Your task to perform on an android device: open app "Adobe Acrobat Reader" (install if not already installed), go to login, and select forgot password Image 0: 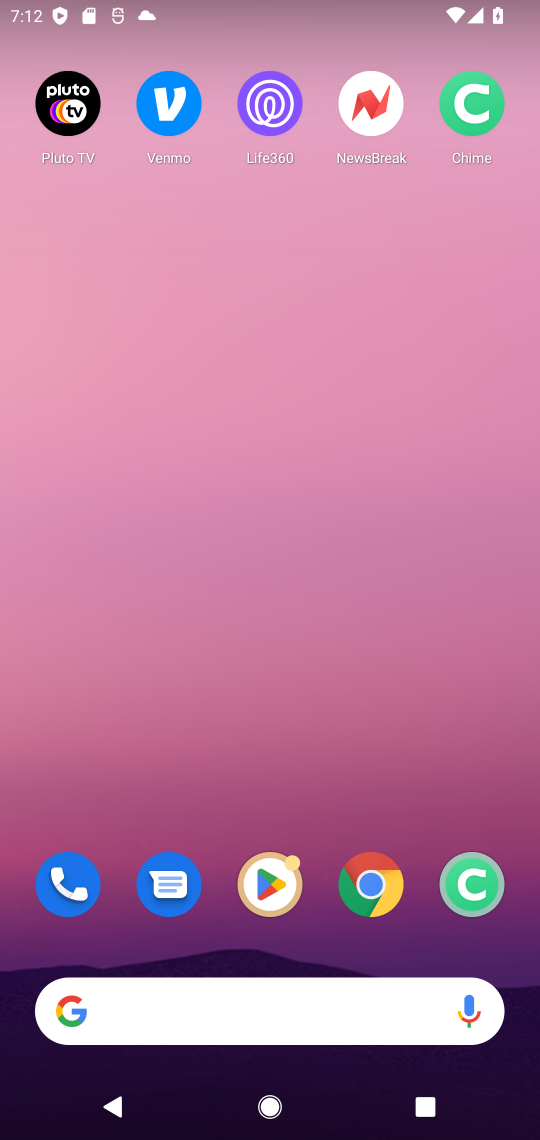
Step 0: click (291, 880)
Your task to perform on an android device: open app "Adobe Acrobat Reader" (install if not already installed), go to login, and select forgot password Image 1: 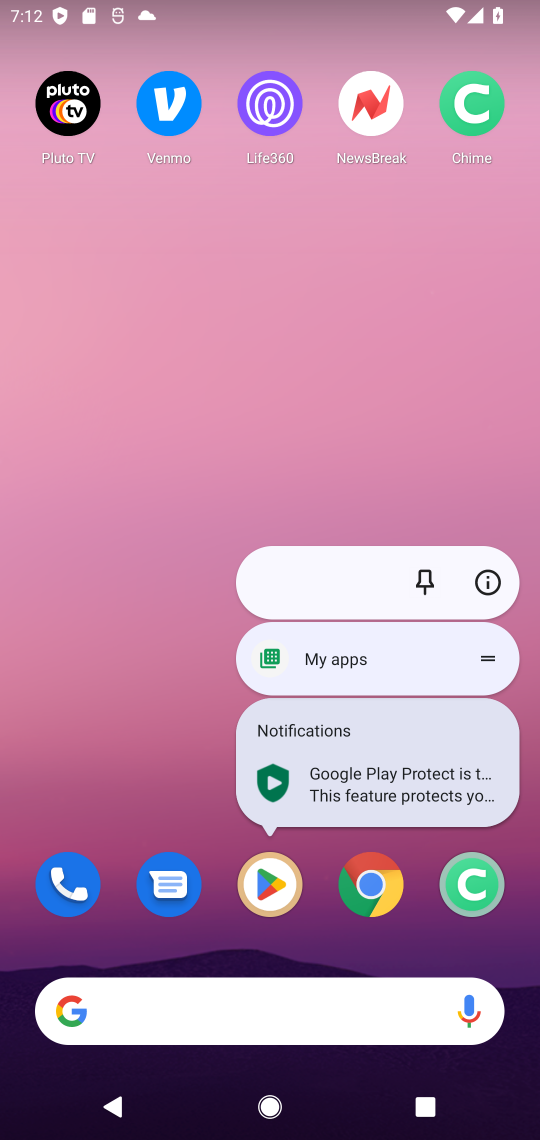
Step 1: click (285, 891)
Your task to perform on an android device: open app "Adobe Acrobat Reader" (install if not already installed), go to login, and select forgot password Image 2: 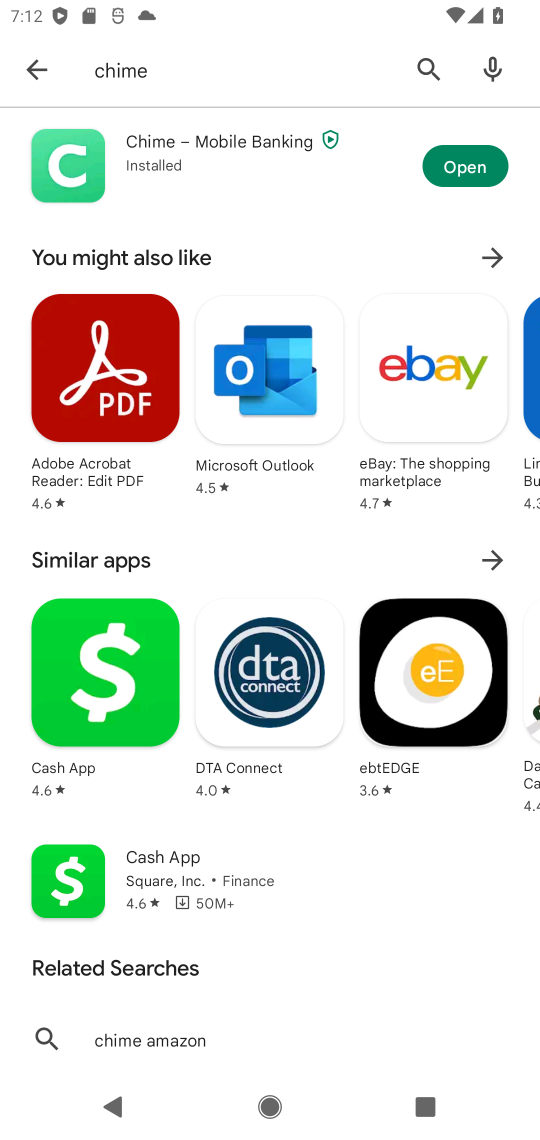
Step 2: click (430, 72)
Your task to perform on an android device: open app "Adobe Acrobat Reader" (install if not already installed), go to login, and select forgot password Image 3: 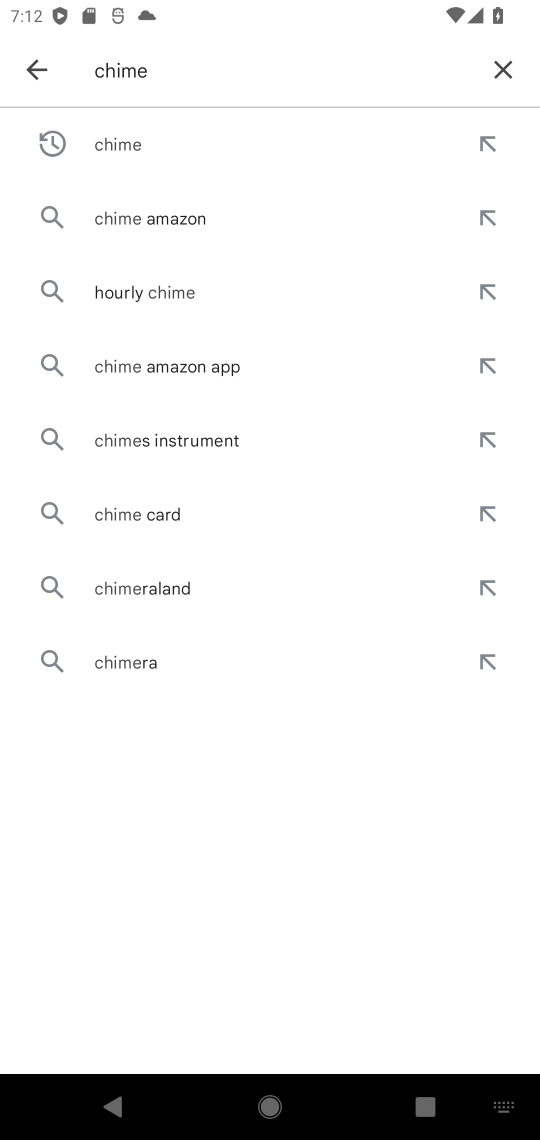
Step 3: click (503, 74)
Your task to perform on an android device: open app "Adobe Acrobat Reader" (install if not already installed), go to login, and select forgot password Image 4: 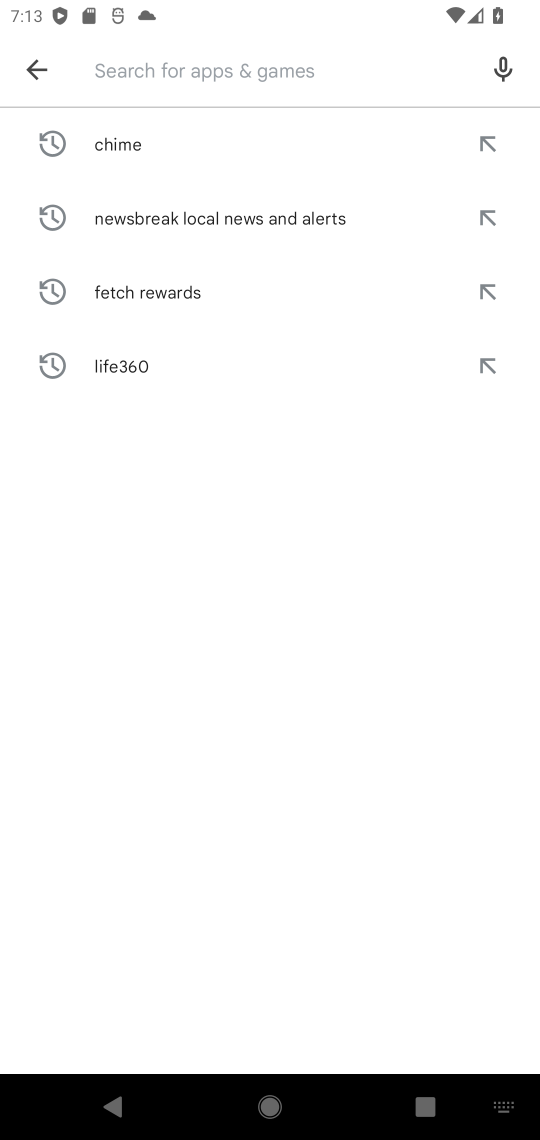
Step 4: type "adibe acrobat"
Your task to perform on an android device: open app "Adobe Acrobat Reader" (install if not already installed), go to login, and select forgot password Image 5: 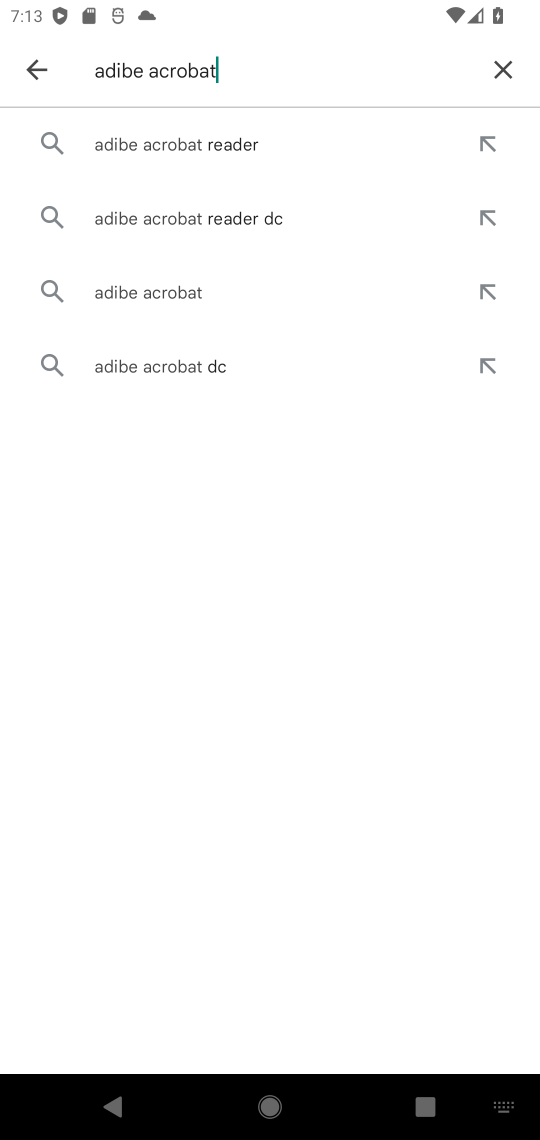
Step 5: click (198, 148)
Your task to perform on an android device: open app "Adobe Acrobat Reader" (install if not already installed), go to login, and select forgot password Image 6: 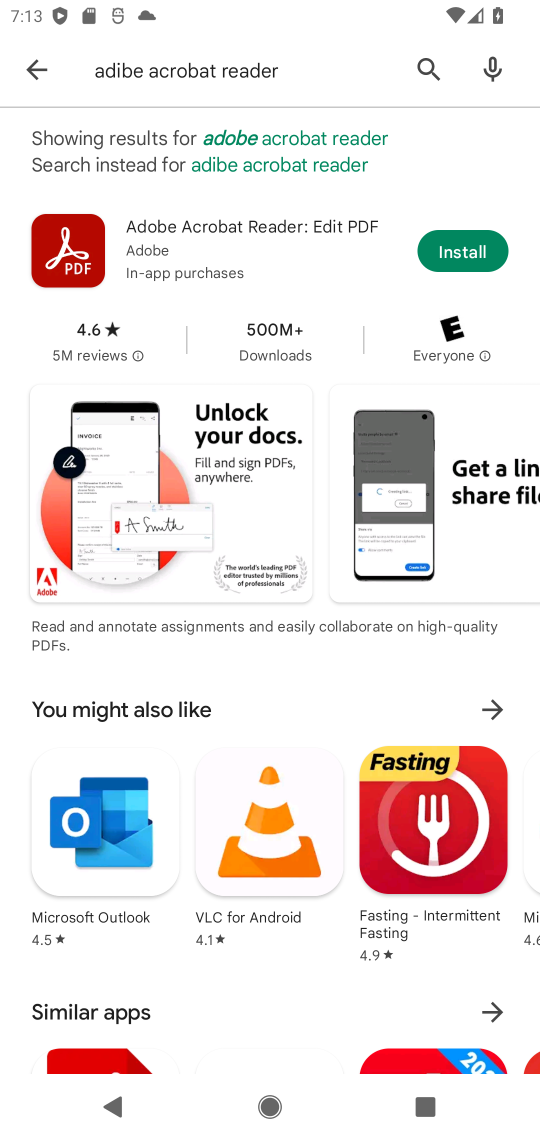
Step 6: click (456, 252)
Your task to perform on an android device: open app "Adobe Acrobat Reader" (install if not already installed), go to login, and select forgot password Image 7: 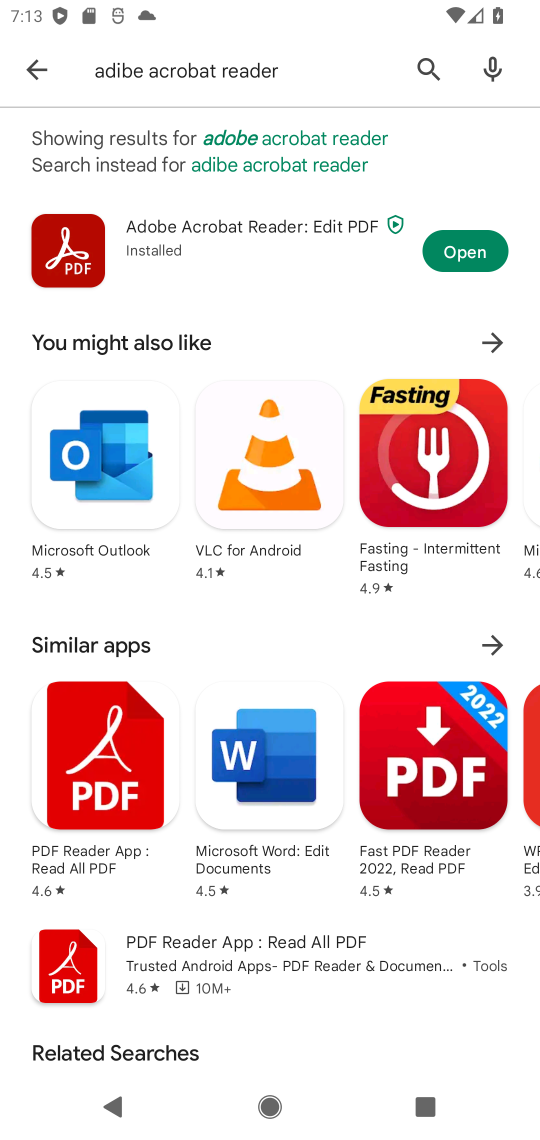
Step 7: click (472, 252)
Your task to perform on an android device: open app "Adobe Acrobat Reader" (install if not already installed), go to login, and select forgot password Image 8: 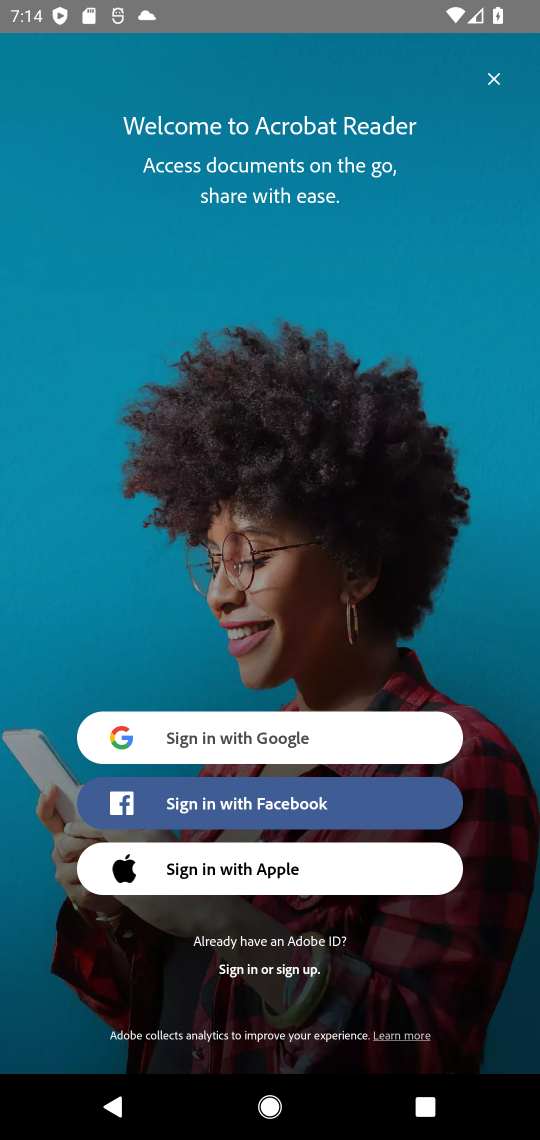
Step 8: click (232, 983)
Your task to perform on an android device: open app "Adobe Acrobat Reader" (install if not already installed), go to login, and select forgot password Image 9: 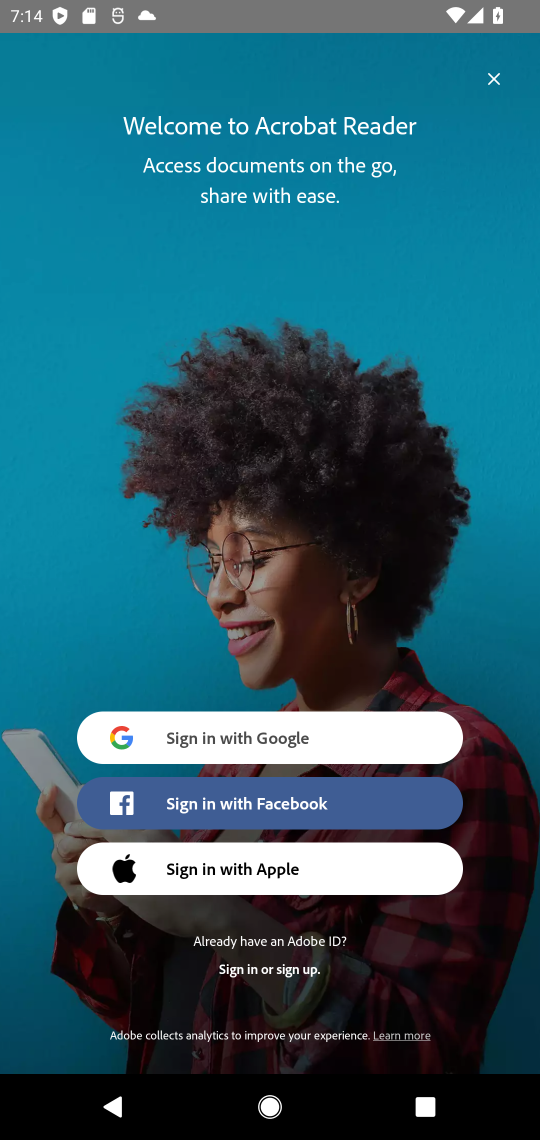
Step 9: click (230, 979)
Your task to perform on an android device: open app "Adobe Acrobat Reader" (install if not already installed), go to login, and select forgot password Image 10: 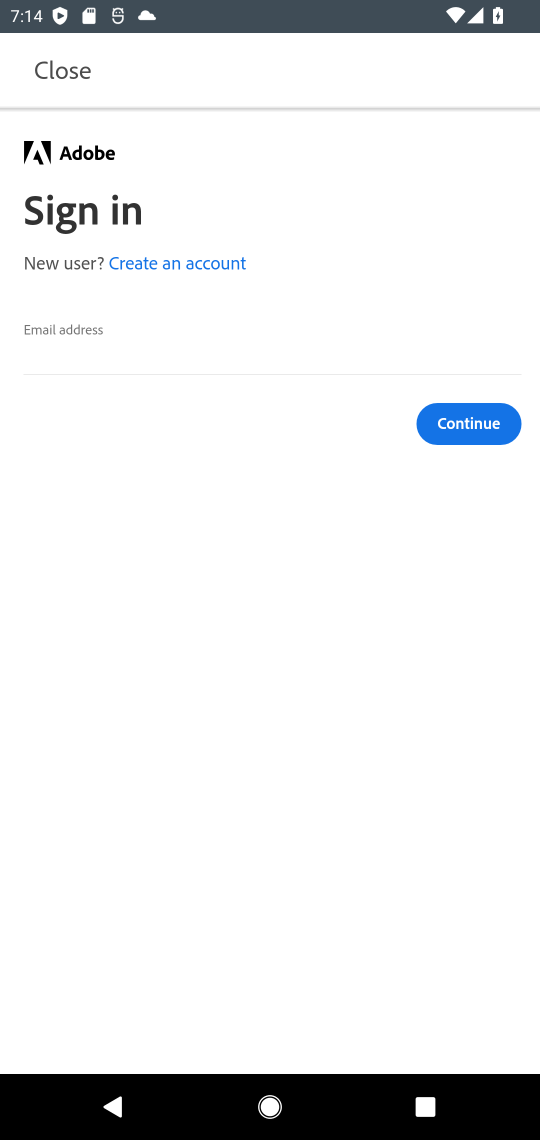
Step 10: task complete